Your task to perform on an android device: turn on javascript in the chrome app Image 0: 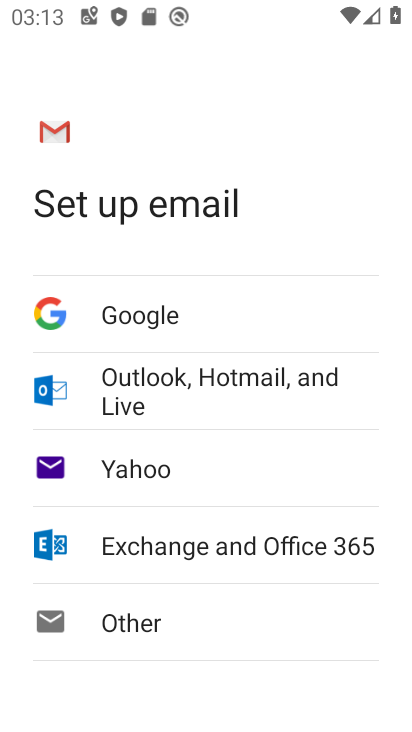
Step 0: press back button
Your task to perform on an android device: turn on javascript in the chrome app Image 1: 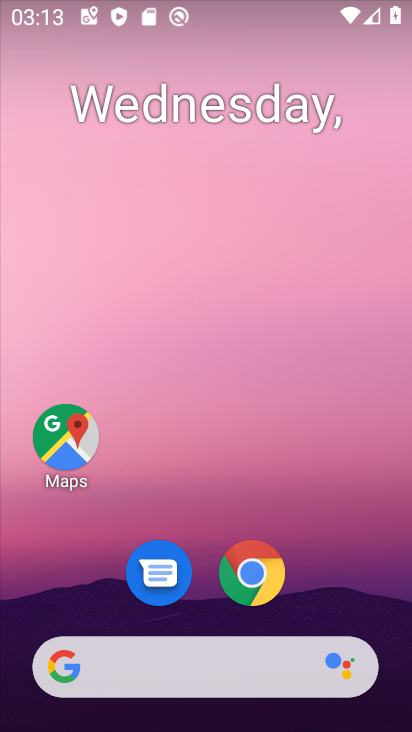
Step 1: click (250, 571)
Your task to perform on an android device: turn on javascript in the chrome app Image 2: 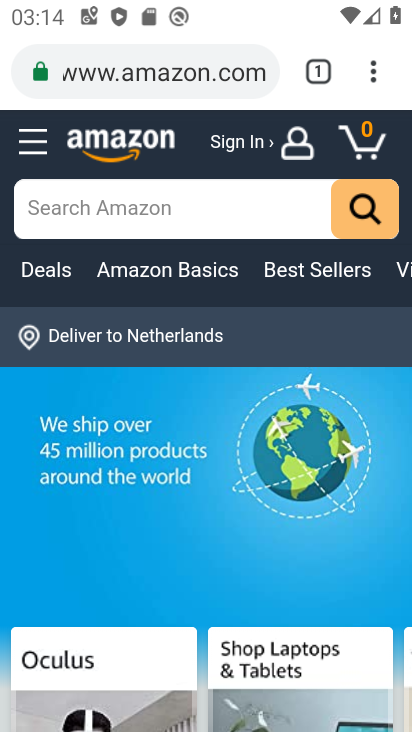
Step 2: click (374, 75)
Your task to perform on an android device: turn on javascript in the chrome app Image 3: 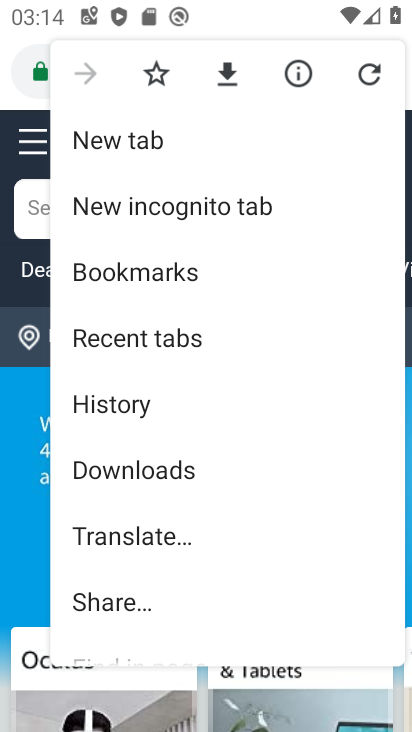
Step 3: drag from (210, 434) to (203, 265)
Your task to perform on an android device: turn on javascript in the chrome app Image 4: 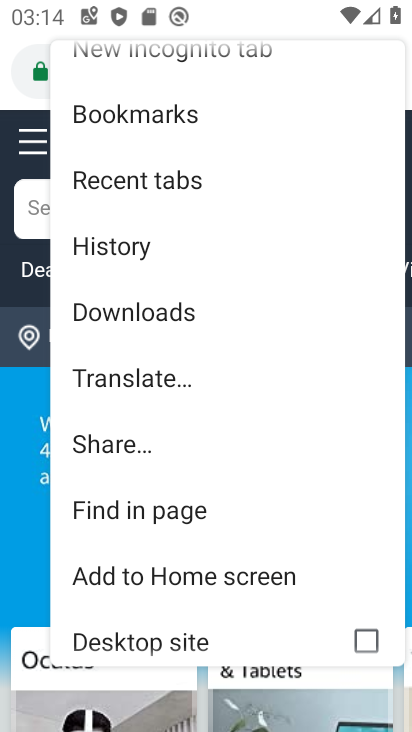
Step 4: drag from (202, 430) to (186, 255)
Your task to perform on an android device: turn on javascript in the chrome app Image 5: 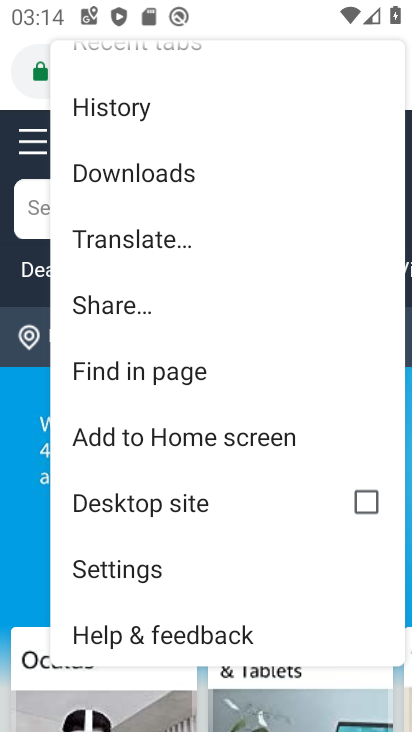
Step 5: click (129, 565)
Your task to perform on an android device: turn on javascript in the chrome app Image 6: 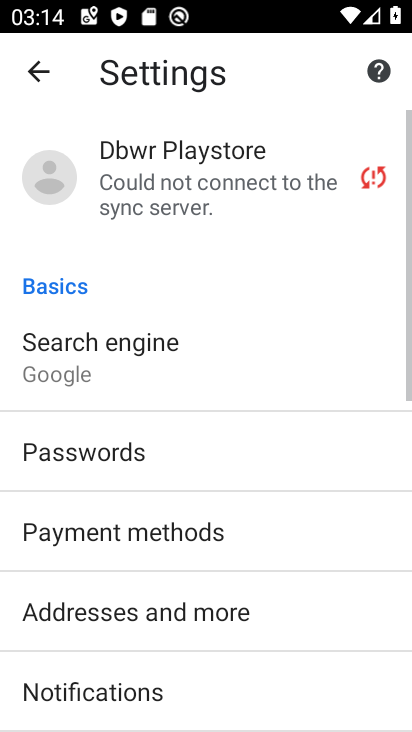
Step 6: drag from (165, 523) to (208, 374)
Your task to perform on an android device: turn on javascript in the chrome app Image 7: 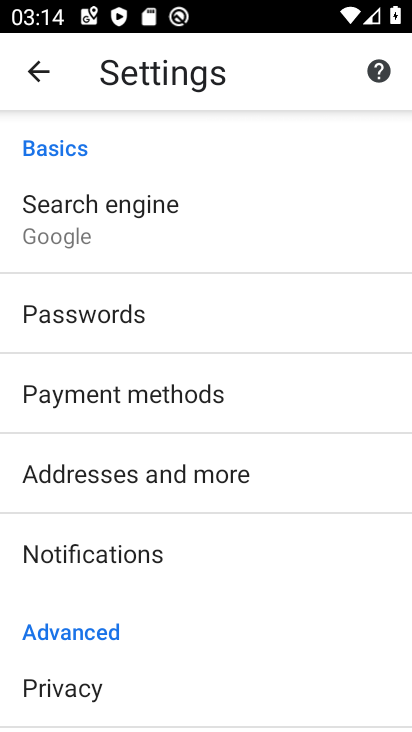
Step 7: drag from (161, 549) to (214, 423)
Your task to perform on an android device: turn on javascript in the chrome app Image 8: 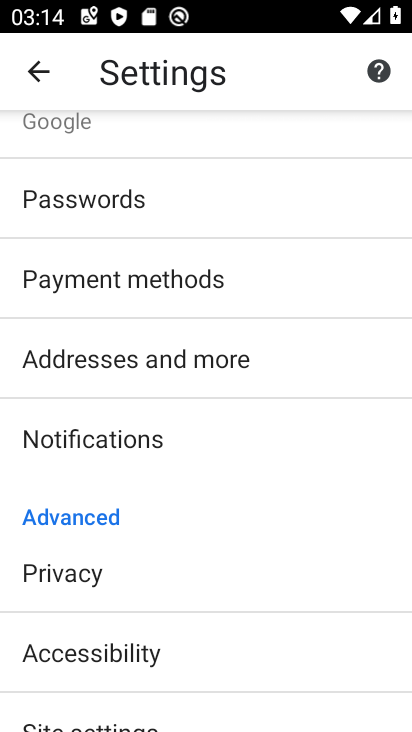
Step 8: drag from (169, 523) to (220, 394)
Your task to perform on an android device: turn on javascript in the chrome app Image 9: 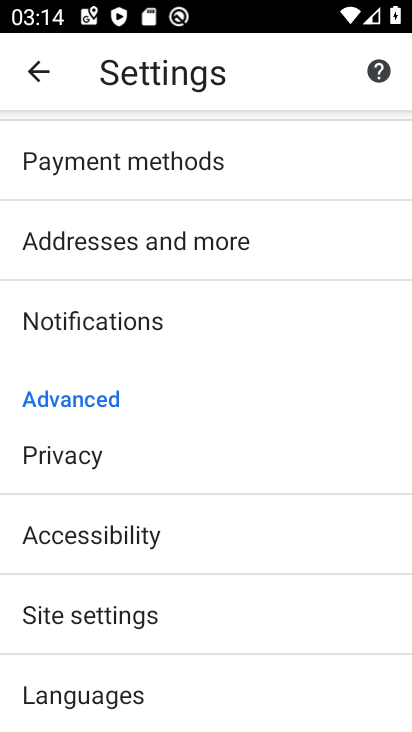
Step 9: click (97, 618)
Your task to perform on an android device: turn on javascript in the chrome app Image 10: 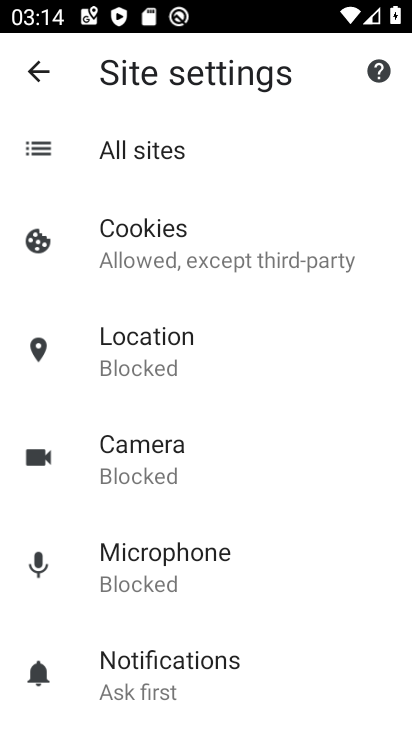
Step 10: drag from (224, 491) to (238, 368)
Your task to perform on an android device: turn on javascript in the chrome app Image 11: 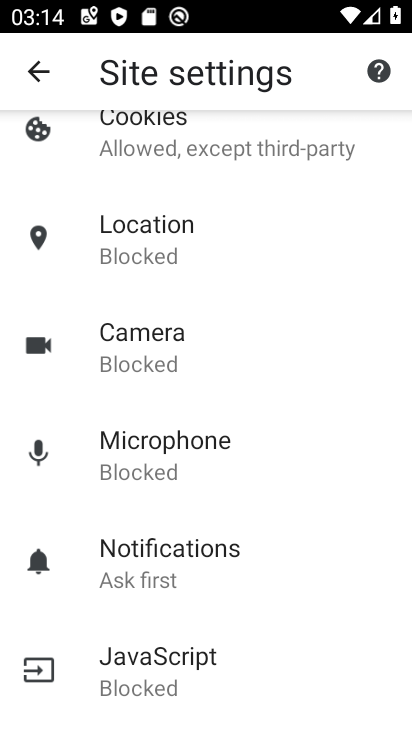
Step 11: drag from (186, 505) to (237, 415)
Your task to perform on an android device: turn on javascript in the chrome app Image 12: 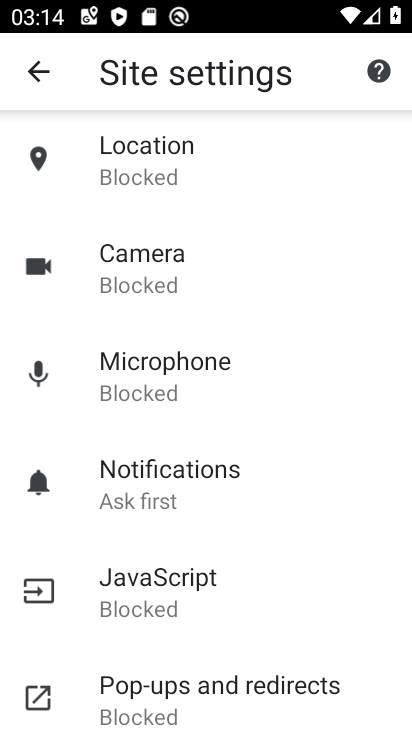
Step 12: click (191, 569)
Your task to perform on an android device: turn on javascript in the chrome app Image 13: 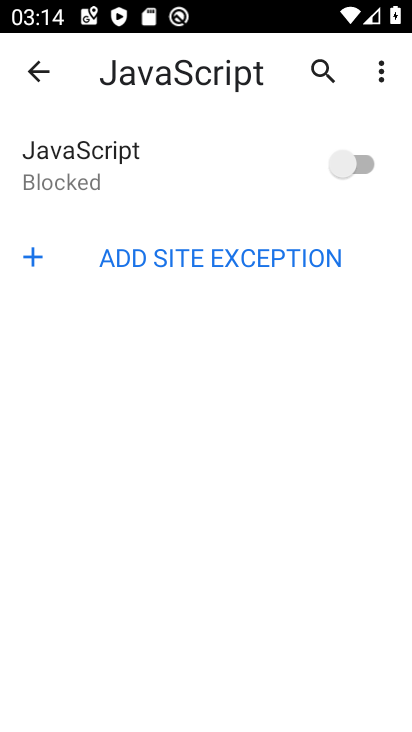
Step 13: click (336, 165)
Your task to perform on an android device: turn on javascript in the chrome app Image 14: 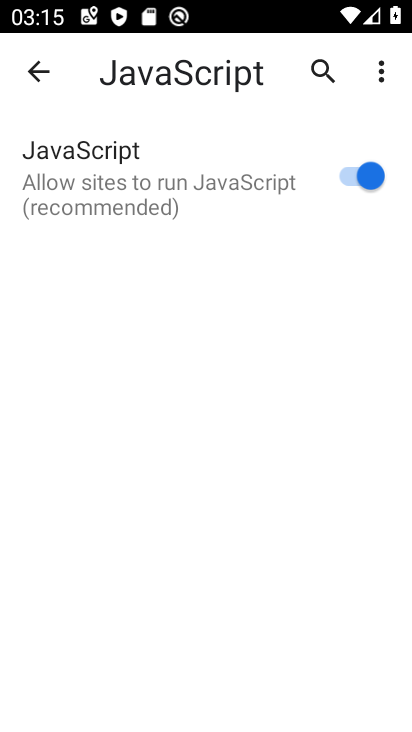
Step 14: task complete